Your task to perform on an android device: turn on improve location accuracy Image 0: 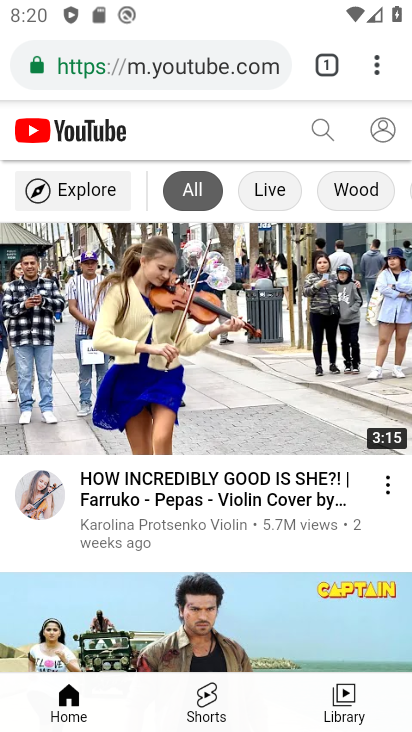
Step 0: press home button
Your task to perform on an android device: turn on improve location accuracy Image 1: 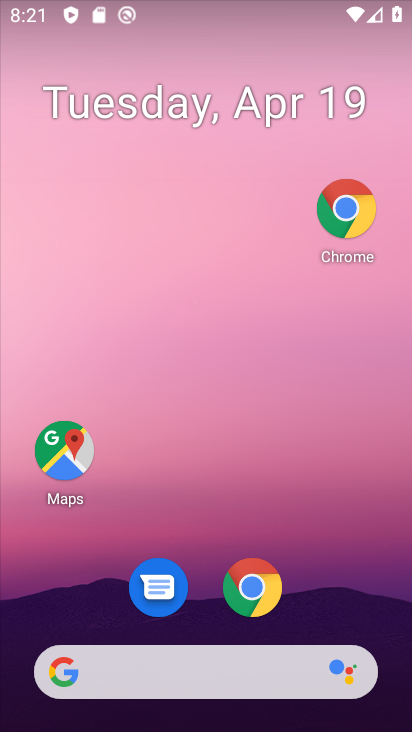
Step 1: click (99, 228)
Your task to perform on an android device: turn on improve location accuracy Image 2: 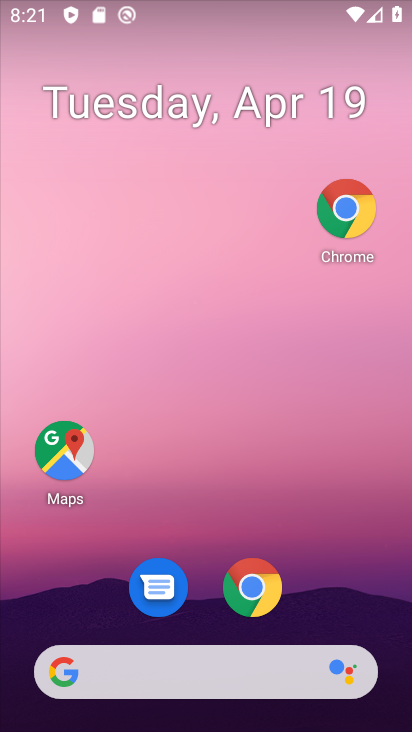
Step 2: drag from (298, 518) to (188, 17)
Your task to perform on an android device: turn on improve location accuracy Image 3: 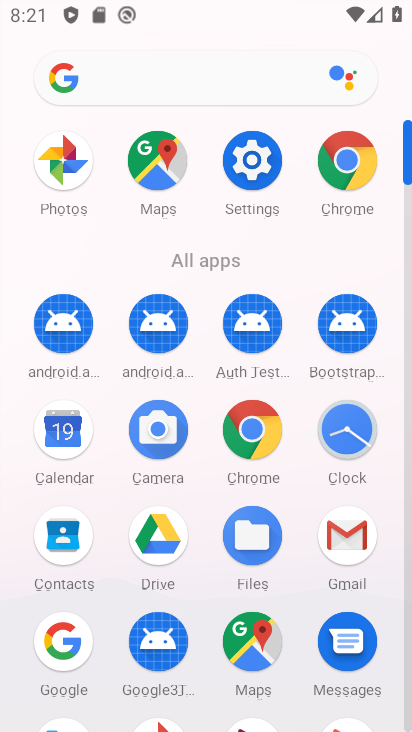
Step 3: click (399, 591)
Your task to perform on an android device: turn on improve location accuracy Image 4: 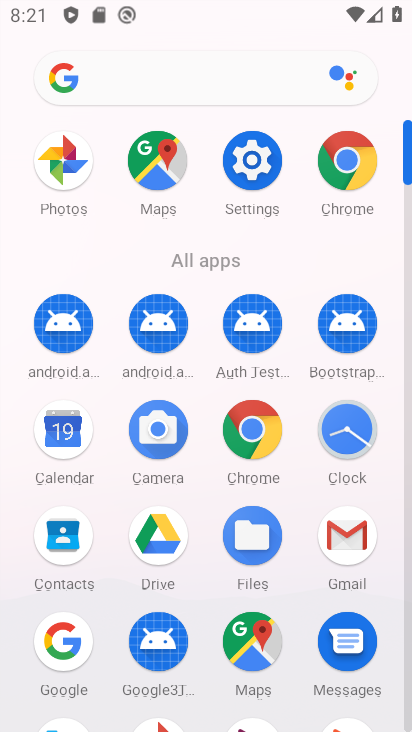
Step 4: click (399, 591)
Your task to perform on an android device: turn on improve location accuracy Image 5: 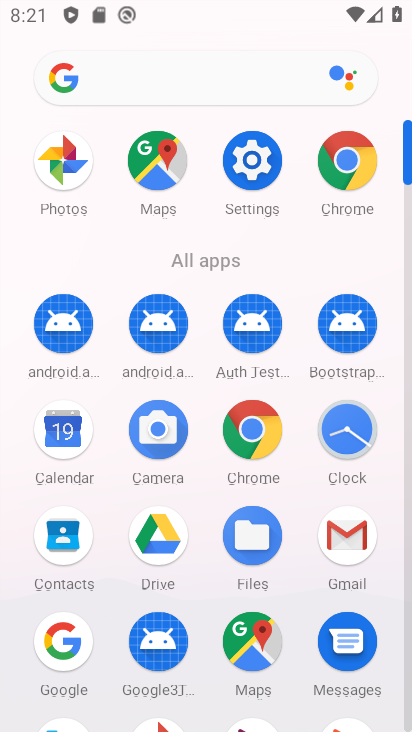
Step 5: drag from (377, 610) to (361, 279)
Your task to perform on an android device: turn on improve location accuracy Image 6: 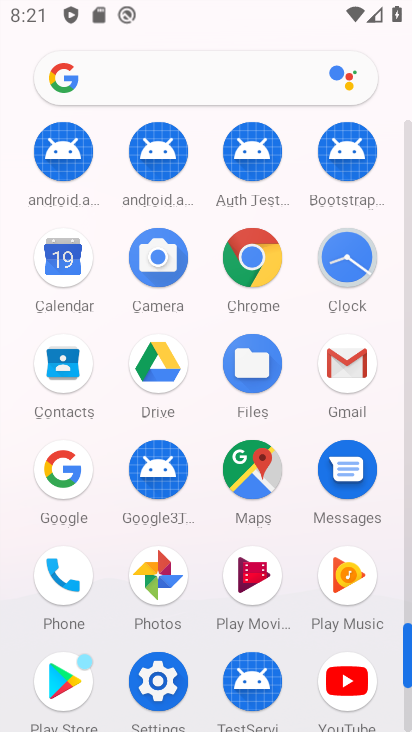
Step 6: drag from (234, 195) to (246, 511)
Your task to perform on an android device: turn on improve location accuracy Image 7: 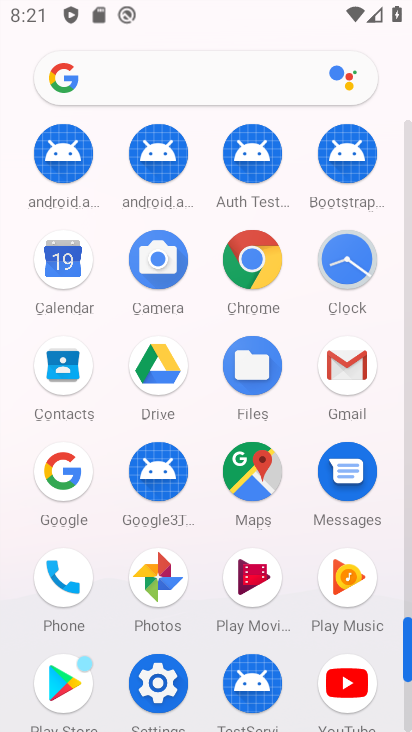
Step 7: drag from (235, 397) to (247, 697)
Your task to perform on an android device: turn on improve location accuracy Image 8: 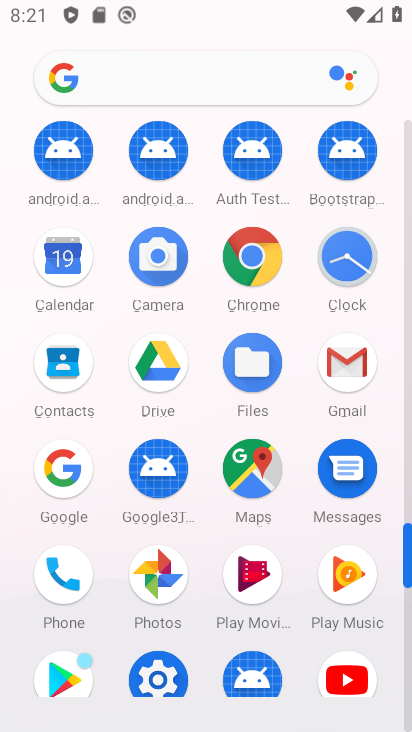
Step 8: drag from (227, 264) to (203, 713)
Your task to perform on an android device: turn on improve location accuracy Image 9: 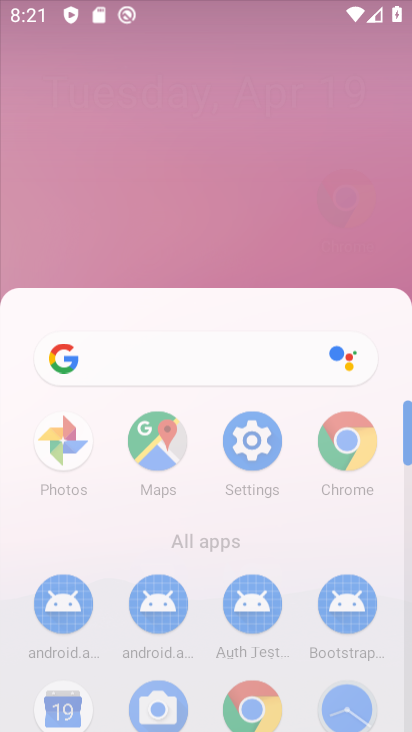
Step 9: click (241, 150)
Your task to perform on an android device: turn on improve location accuracy Image 10: 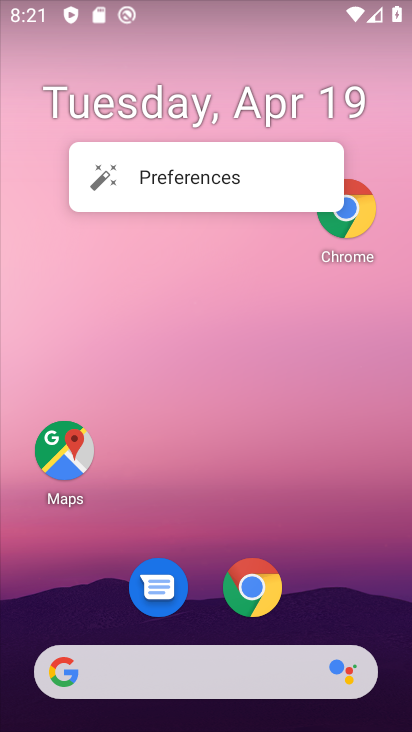
Step 10: click (243, 155)
Your task to perform on an android device: turn on improve location accuracy Image 11: 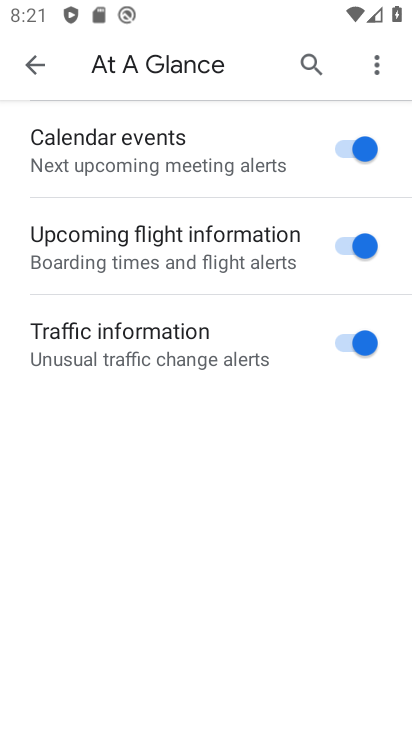
Step 11: click (26, 66)
Your task to perform on an android device: turn on improve location accuracy Image 12: 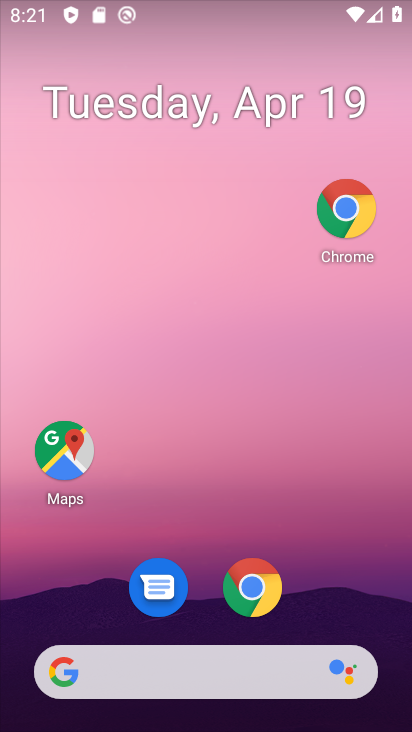
Step 12: click (190, 70)
Your task to perform on an android device: turn on improve location accuracy Image 13: 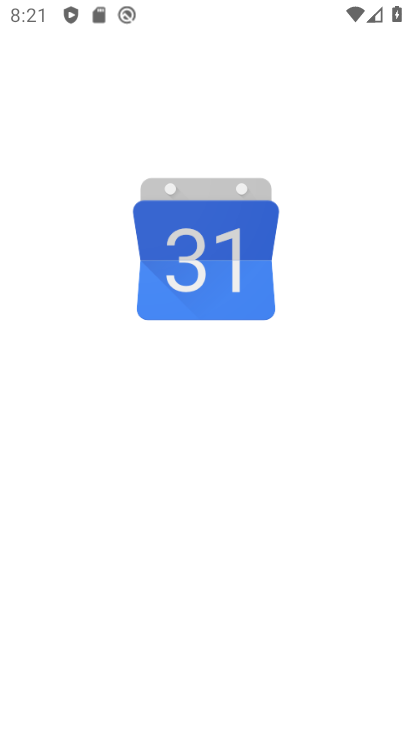
Step 13: drag from (225, 543) to (138, 2)
Your task to perform on an android device: turn on improve location accuracy Image 14: 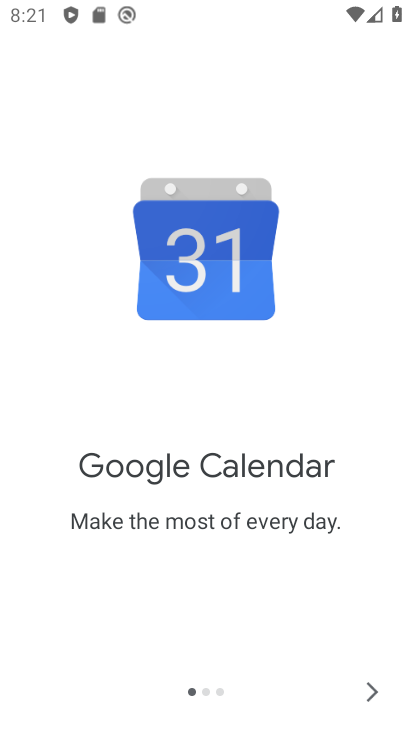
Step 14: click (374, 683)
Your task to perform on an android device: turn on improve location accuracy Image 15: 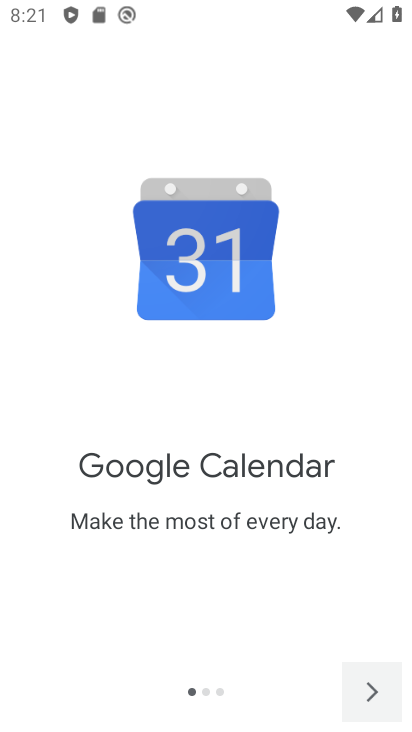
Step 15: click (374, 683)
Your task to perform on an android device: turn on improve location accuracy Image 16: 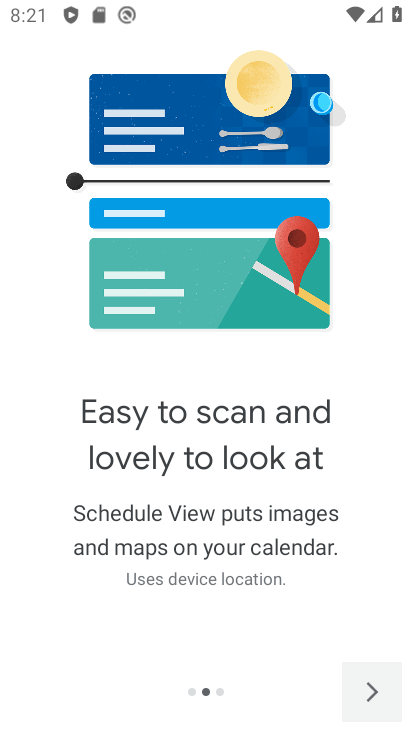
Step 16: click (372, 695)
Your task to perform on an android device: turn on improve location accuracy Image 17: 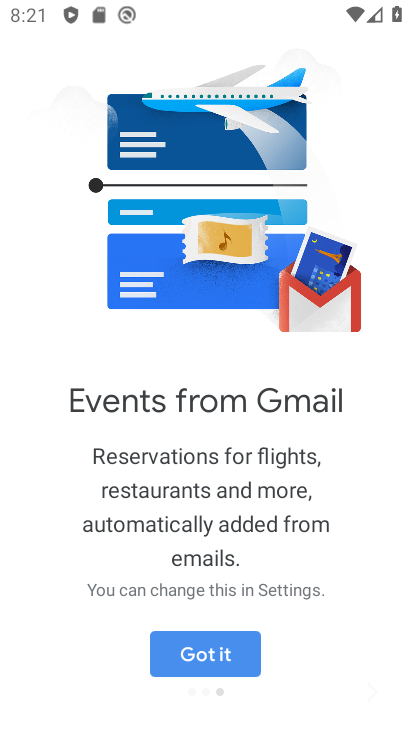
Step 17: click (372, 695)
Your task to perform on an android device: turn on improve location accuracy Image 18: 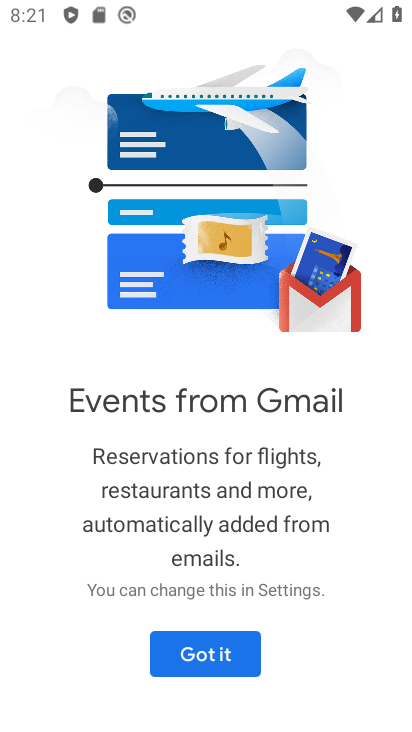
Step 18: click (182, 630)
Your task to perform on an android device: turn on improve location accuracy Image 19: 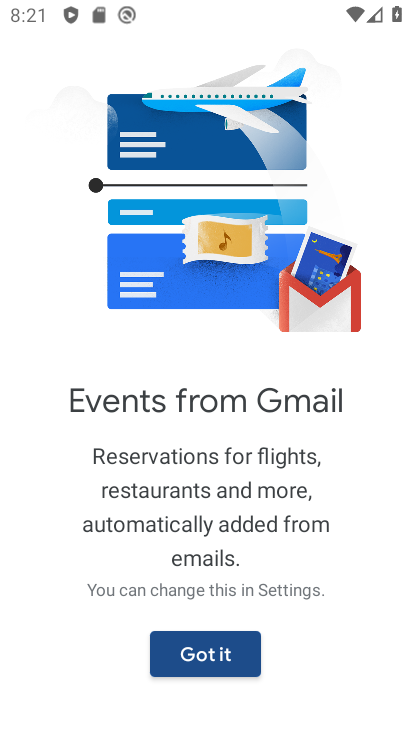
Step 19: click (216, 635)
Your task to perform on an android device: turn on improve location accuracy Image 20: 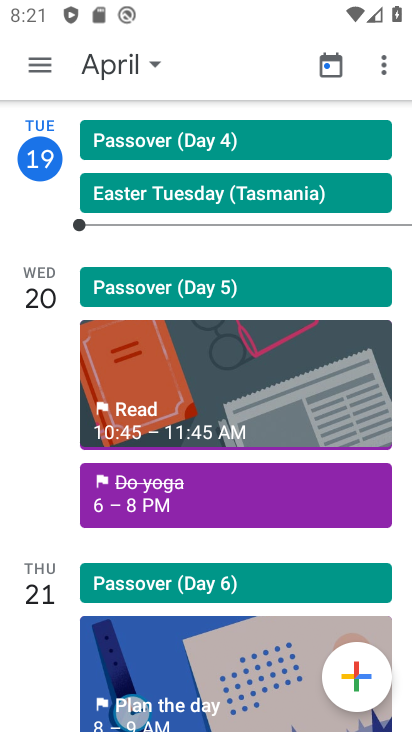
Step 20: press home button
Your task to perform on an android device: turn on improve location accuracy Image 21: 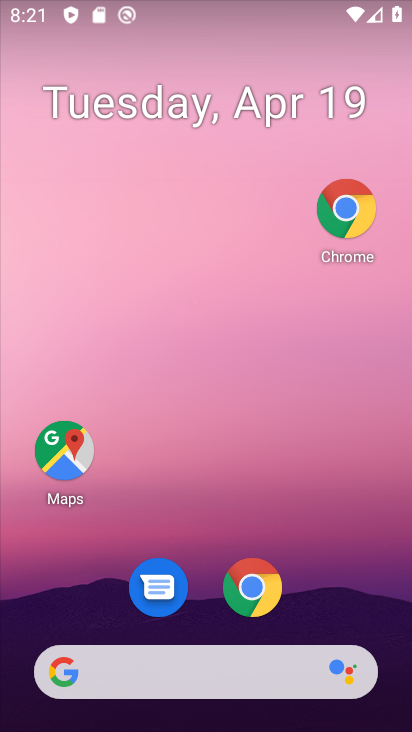
Step 21: click (109, 74)
Your task to perform on an android device: turn on improve location accuracy Image 22: 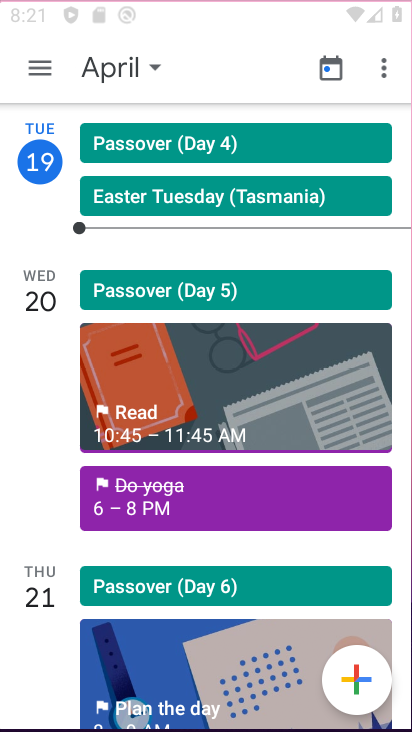
Step 22: drag from (181, 463) to (92, 11)
Your task to perform on an android device: turn on improve location accuracy Image 23: 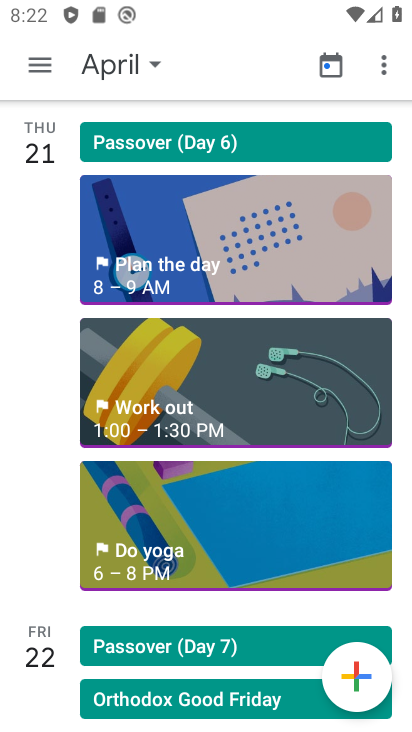
Step 23: press home button
Your task to perform on an android device: turn on improve location accuracy Image 24: 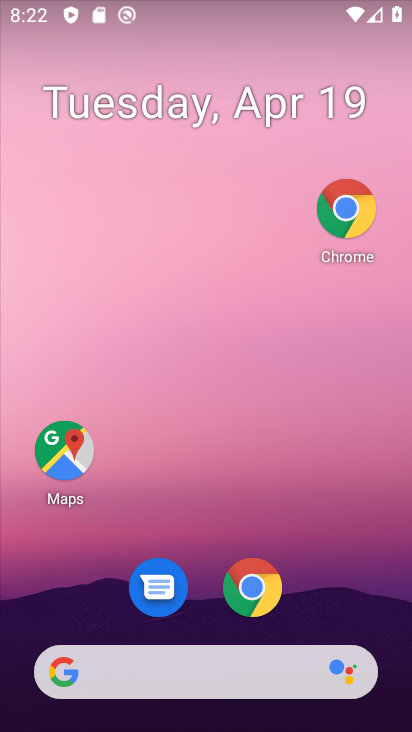
Step 24: drag from (343, 514) to (137, 65)
Your task to perform on an android device: turn on improve location accuracy Image 25: 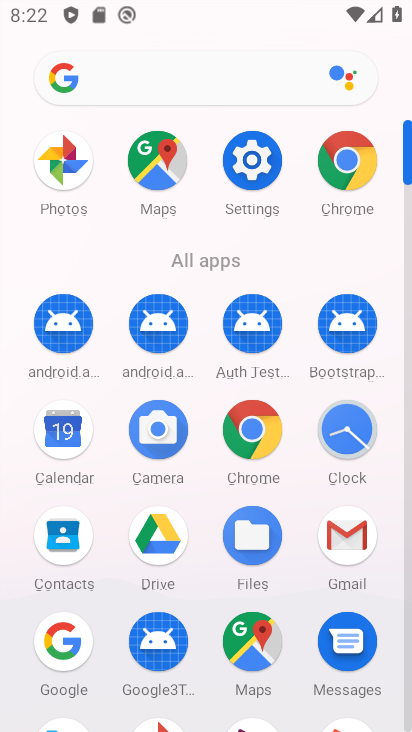
Step 25: click (350, 161)
Your task to perform on an android device: turn on improve location accuracy Image 26: 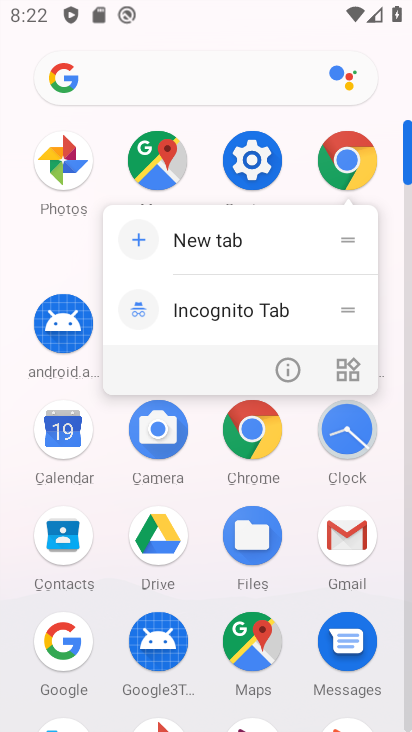
Step 26: click (400, 264)
Your task to perform on an android device: turn on improve location accuracy Image 27: 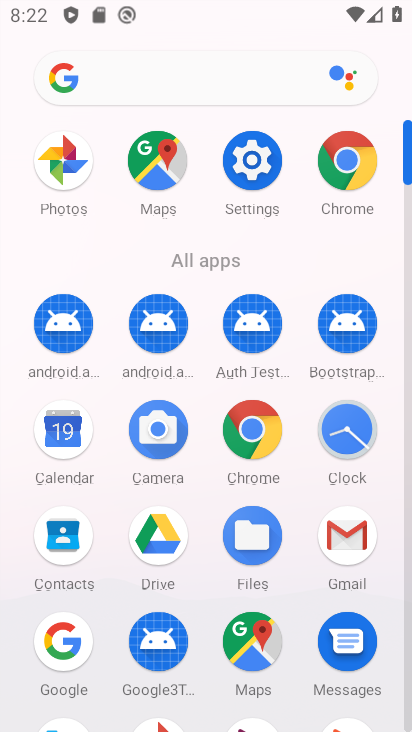
Step 27: click (249, 162)
Your task to perform on an android device: turn on improve location accuracy Image 28: 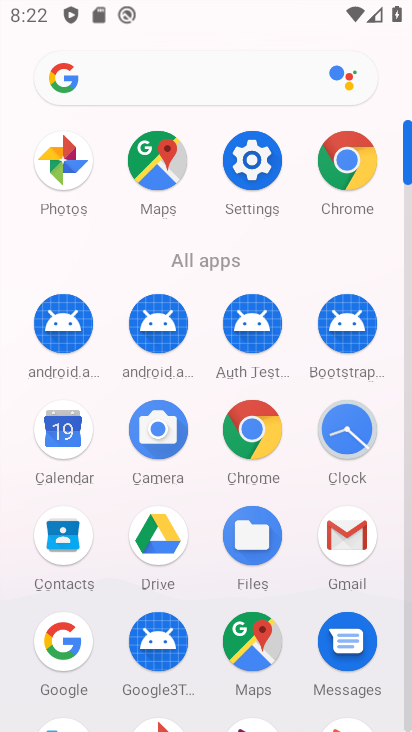
Step 28: click (251, 160)
Your task to perform on an android device: turn on improve location accuracy Image 29: 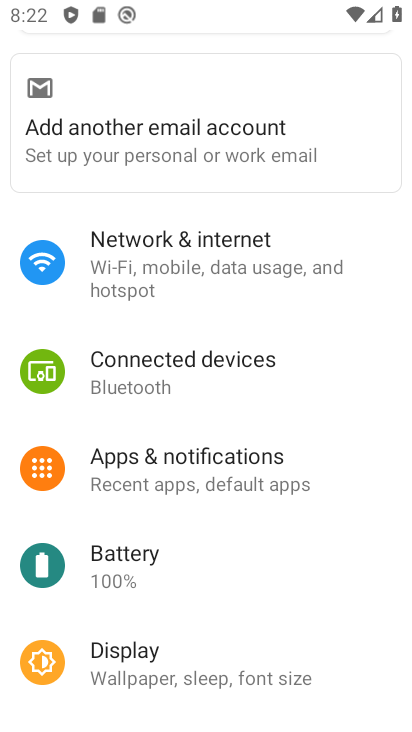
Step 29: drag from (195, 652) to (175, 283)
Your task to perform on an android device: turn on improve location accuracy Image 30: 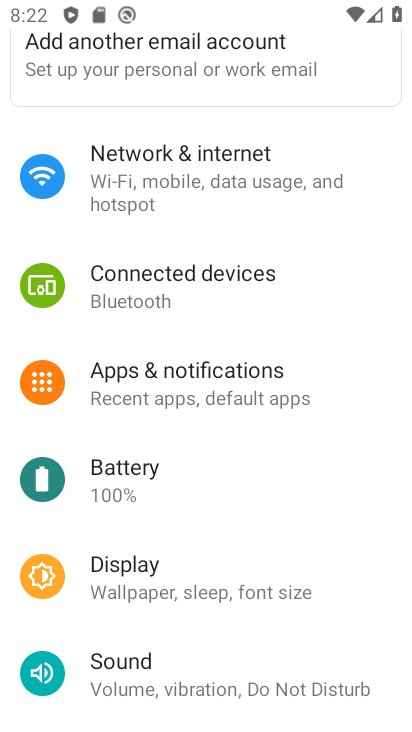
Step 30: drag from (210, 541) to (145, 121)
Your task to perform on an android device: turn on improve location accuracy Image 31: 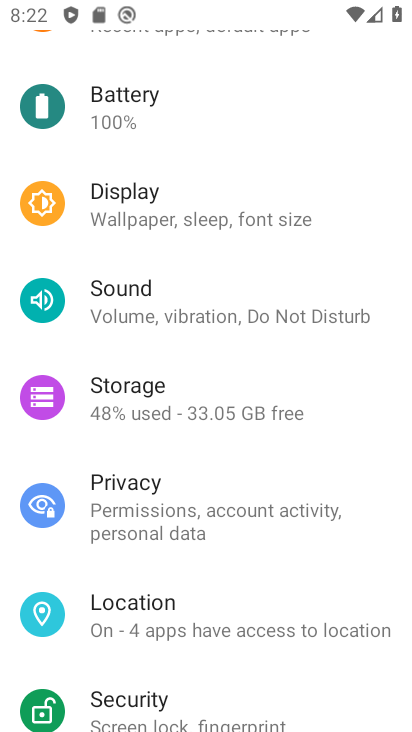
Step 31: click (123, 623)
Your task to perform on an android device: turn on improve location accuracy Image 32: 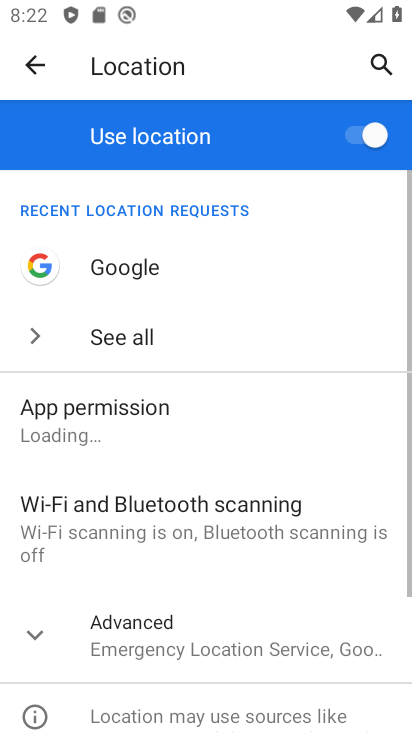
Step 32: drag from (147, 581) to (139, 200)
Your task to perform on an android device: turn on improve location accuracy Image 33: 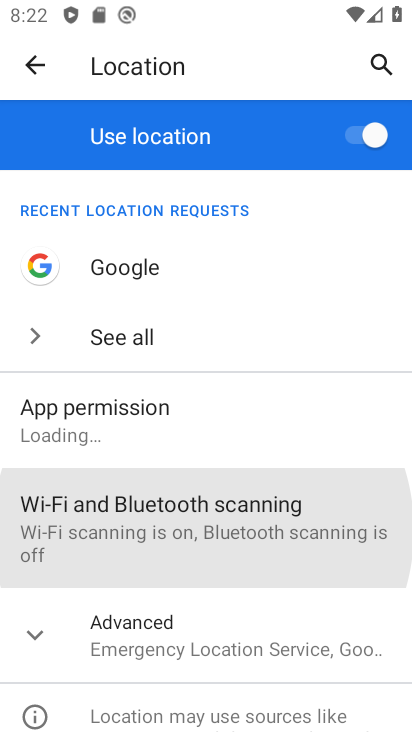
Step 33: drag from (278, 594) to (278, 185)
Your task to perform on an android device: turn on improve location accuracy Image 34: 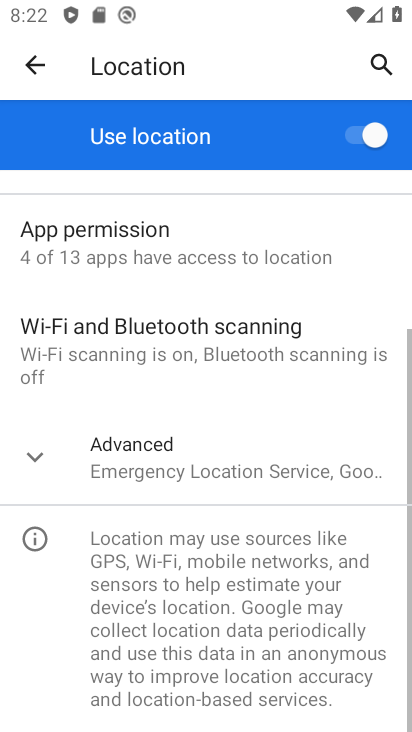
Step 34: click (145, 454)
Your task to perform on an android device: turn on improve location accuracy Image 35: 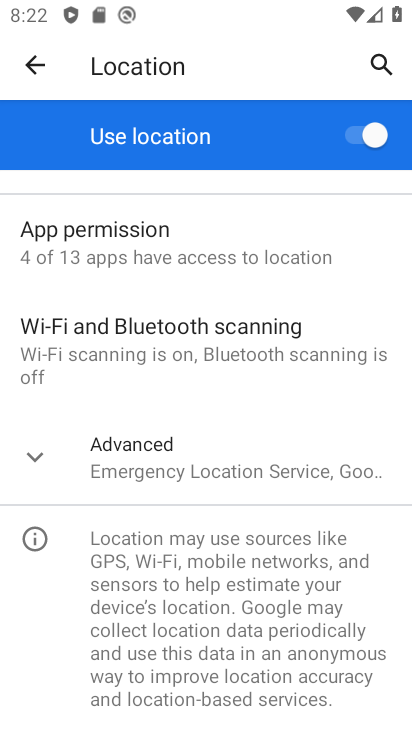
Step 35: click (162, 462)
Your task to perform on an android device: turn on improve location accuracy Image 36: 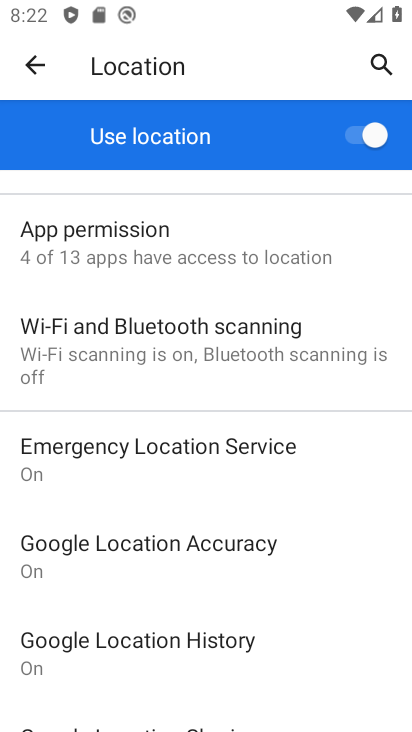
Step 36: click (163, 541)
Your task to perform on an android device: turn on improve location accuracy Image 37: 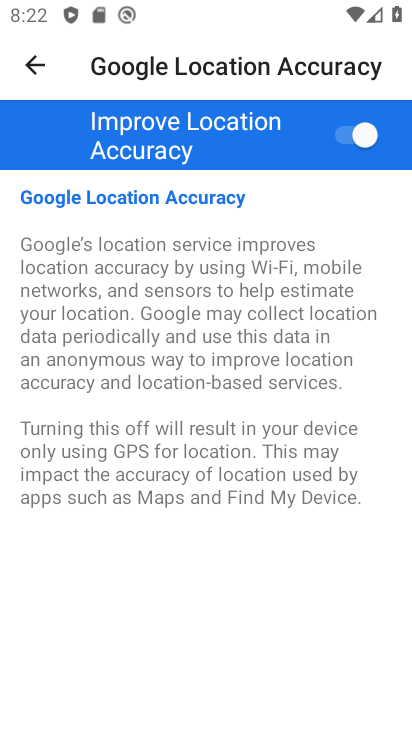
Step 37: click (356, 133)
Your task to perform on an android device: turn on improve location accuracy Image 38: 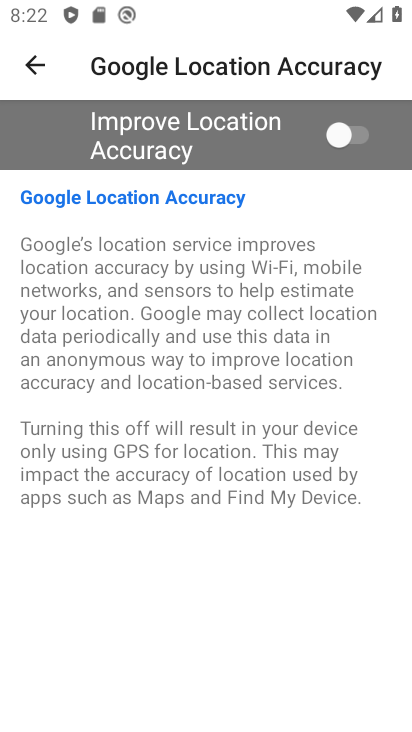
Step 38: click (356, 133)
Your task to perform on an android device: turn on improve location accuracy Image 39: 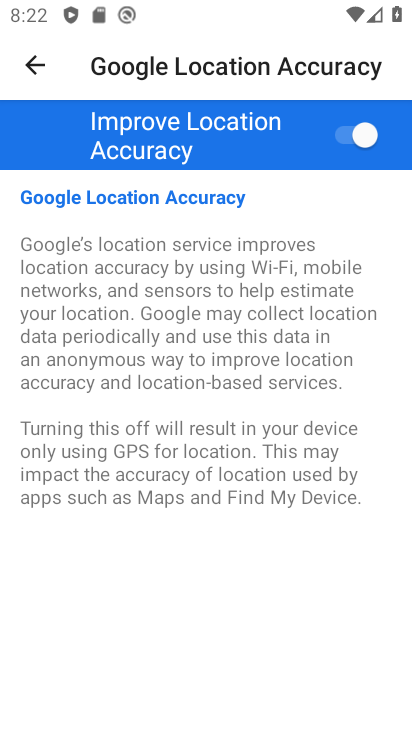
Step 39: task complete